Your task to perform on an android device: What's the weather today? Image 0: 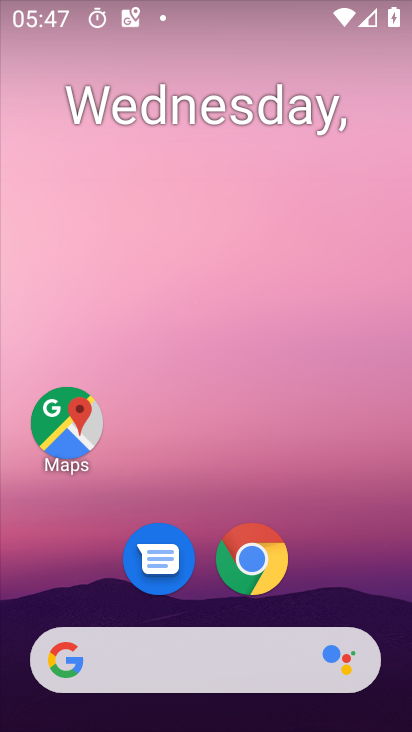
Step 0: drag from (339, 491) to (194, 14)
Your task to perform on an android device: What's the weather today? Image 1: 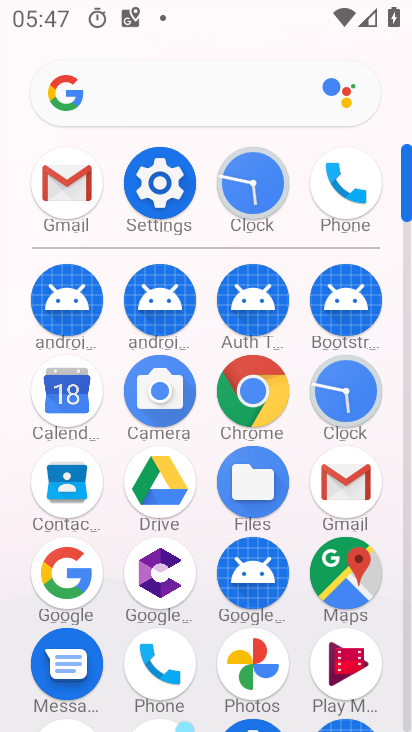
Step 1: click (72, 598)
Your task to perform on an android device: What's the weather today? Image 2: 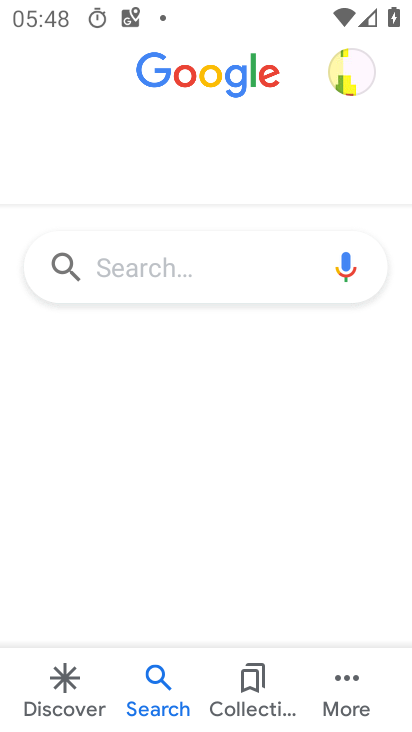
Step 2: click (183, 268)
Your task to perform on an android device: What's the weather today? Image 3: 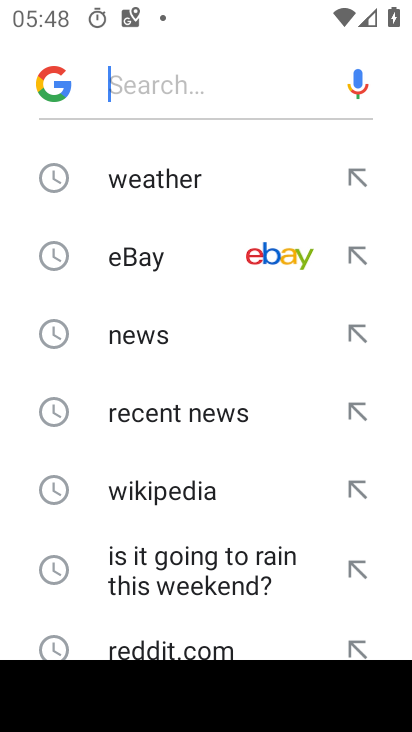
Step 3: click (155, 170)
Your task to perform on an android device: What's the weather today? Image 4: 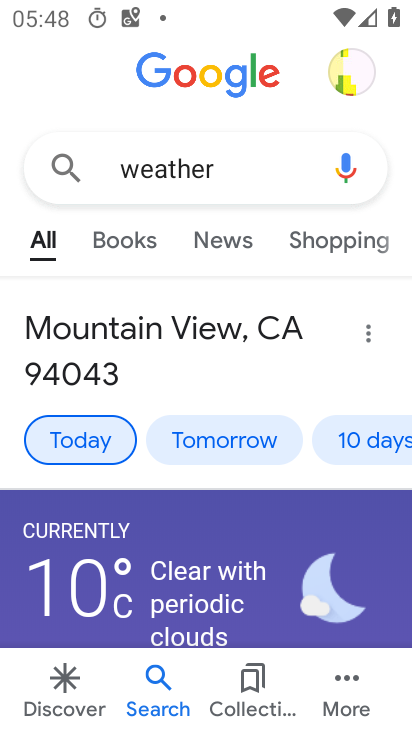
Step 4: task complete